Your task to perform on an android device: Set the phone to "Do not disturb". Image 0: 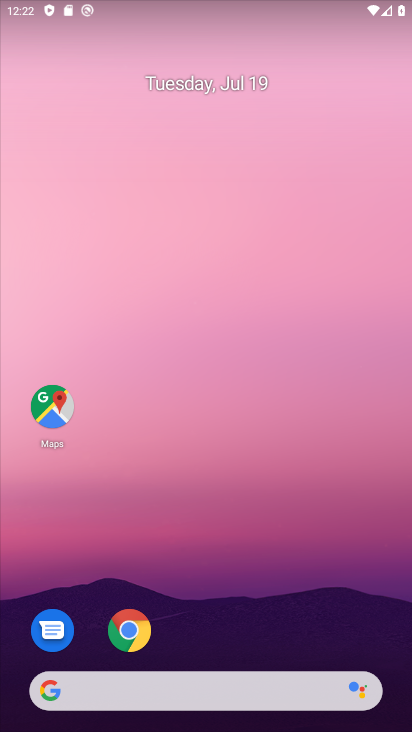
Step 0: press home button
Your task to perform on an android device: Set the phone to "Do not disturb". Image 1: 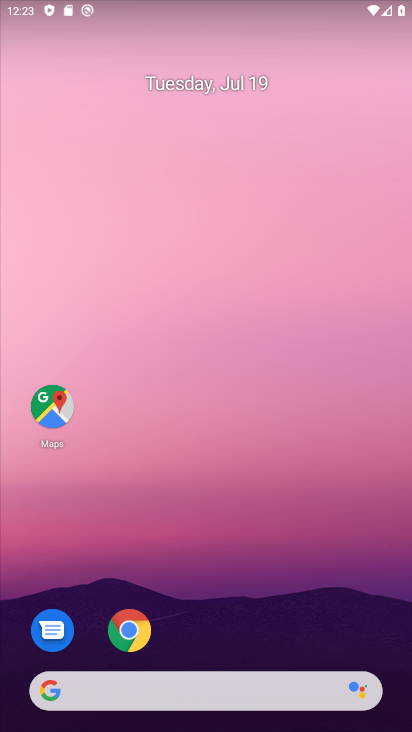
Step 1: drag from (168, 692) to (276, 171)
Your task to perform on an android device: Set the phone to "Do not disturb". Image 2: 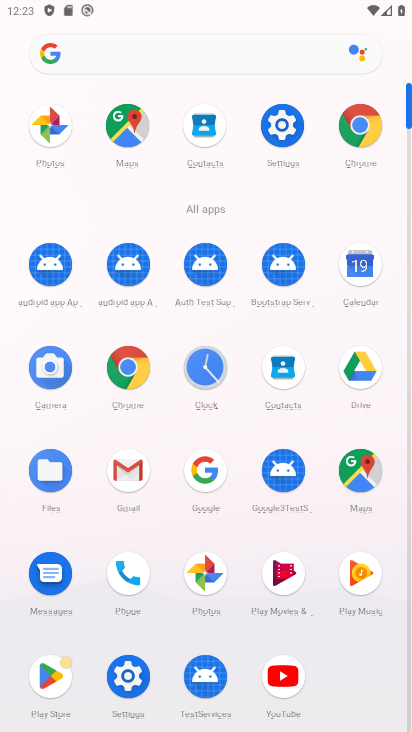
Step 2: click (286, 129)
Your task to perform on an android device: Set the phone to "Do not disturb". Image 3: 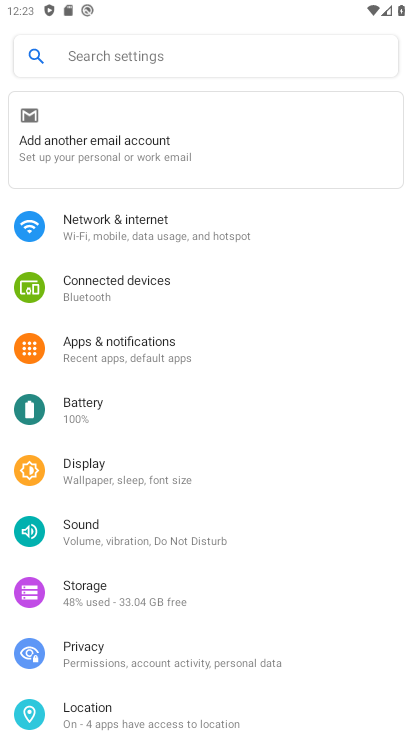
Step 3: click (136, 531)
Your task to perform on an android device: Set the phone to "Do not disturb". Image 4: 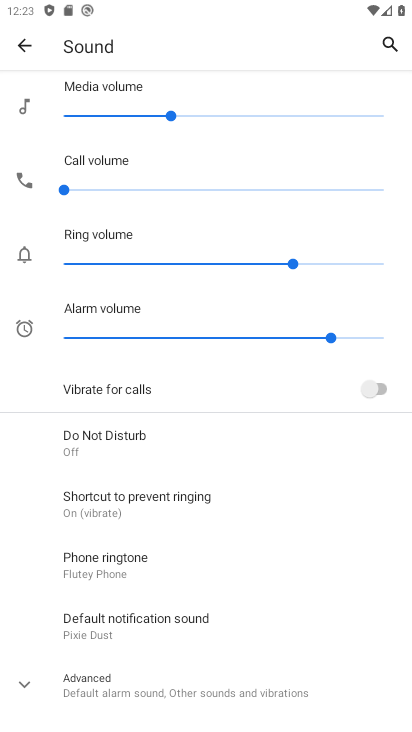
Step 4: click (106, 441)
Your task to perform on an android device: Set the phone to "Do not disturb". Image 5: 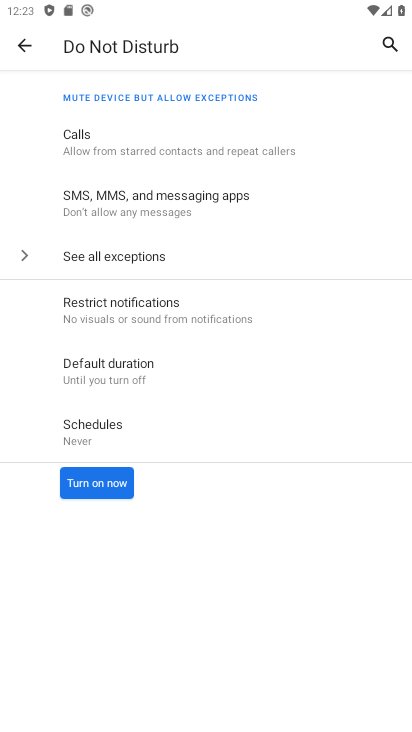
Step 5: click (96, 480)
Your task to perform on an android device: Set the phone to "Do not disturb". Image 6: 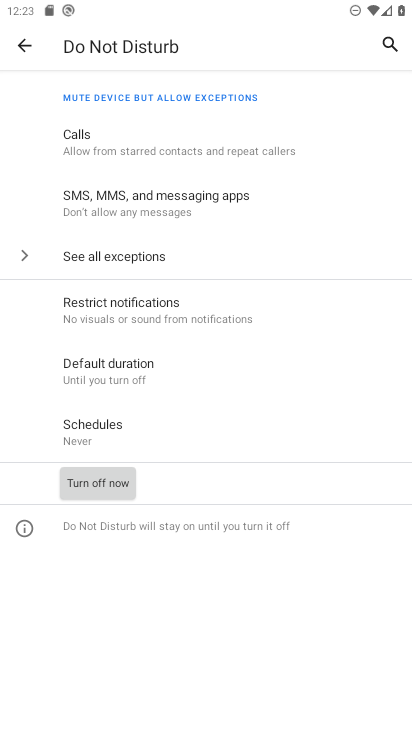
Step 6: task complete